Your task to perform on an android device: all mails in gmail Image 0: 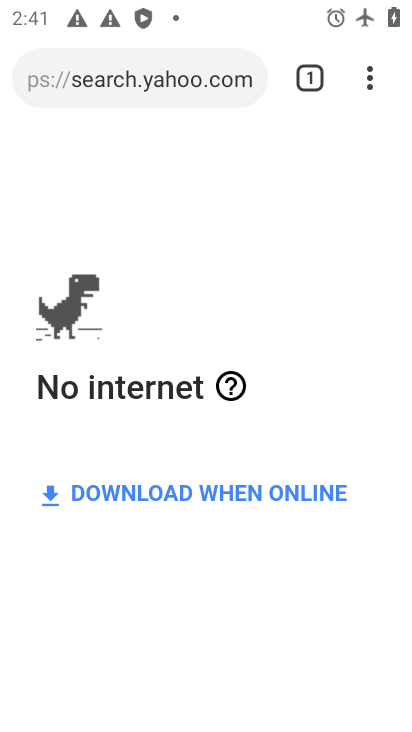
Step 0: press home button
Your task to perform on an android device: all mails in gmail Image 1: 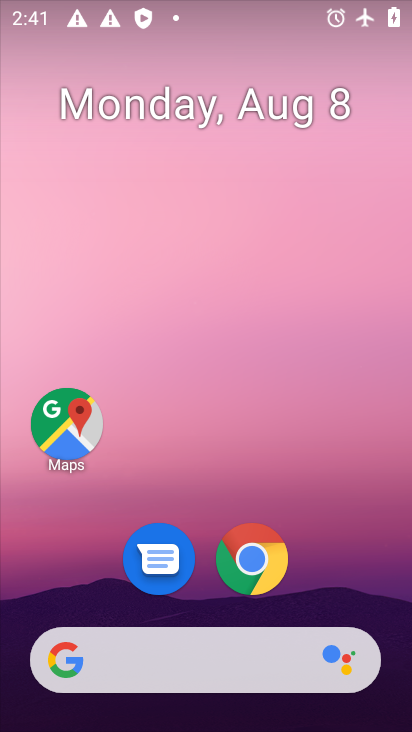
Step 1: drag from (179, 681) to (294, 191)
Your task to perform on an android device: all mails in gmail Image 2: 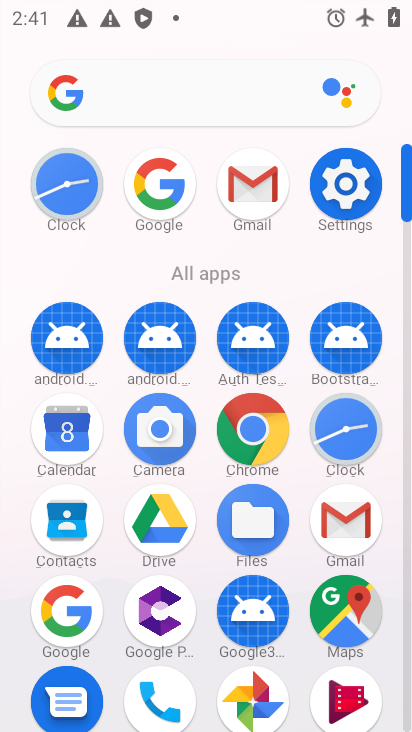
Step 2: click (253, 182)
Your task to perform on an android device: all mails in gmail Image 3: 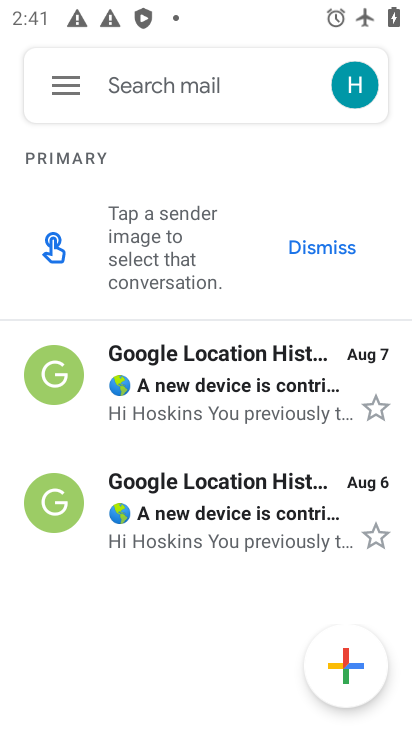
Step 3: click (73, 90)
Your task to perform on an android device: all mails in gmail Image 4: 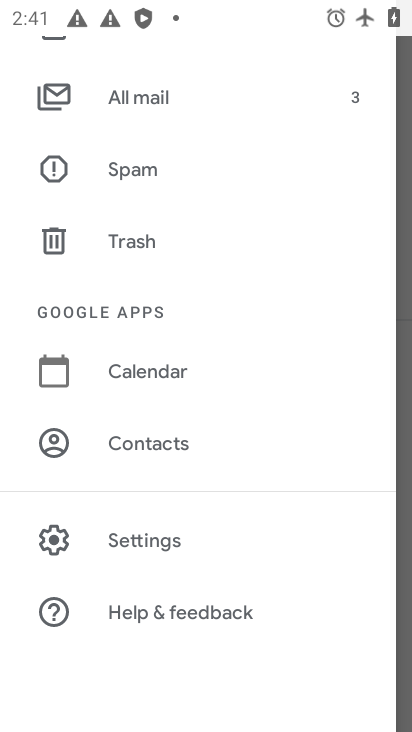
Step 4: click (104, 98)
Your task to perform on an android device: all mails in gmail Image 5: 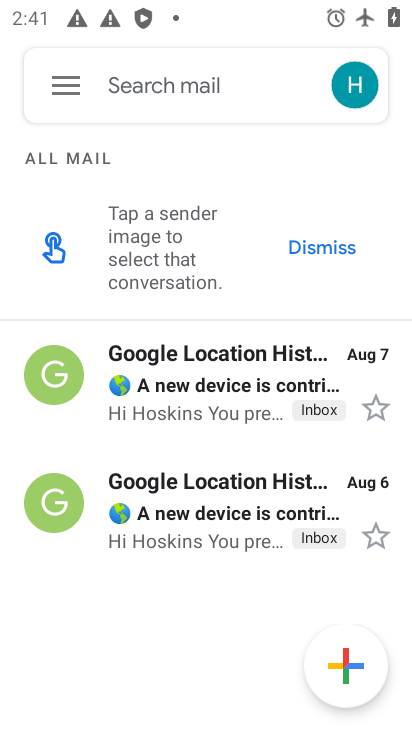
Step 5: task complete